Your task to perform on an android device: toggle show notifications on the lock screen Image 0: 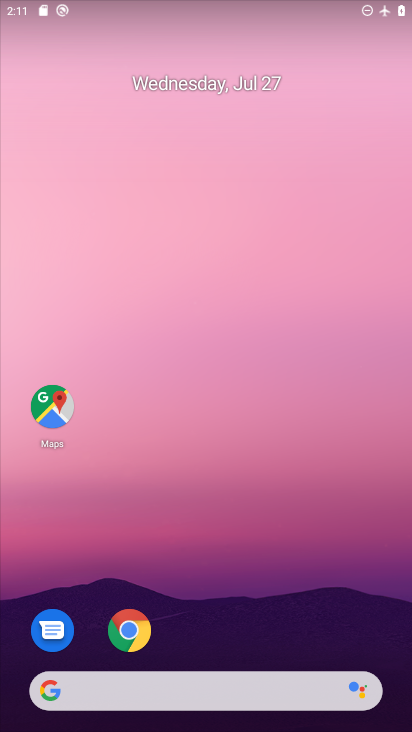
Step 0: drag from (375, 645) to (344, 183)
Your task to perform on an android device: toggle show notifications on the lock screen Image 1: 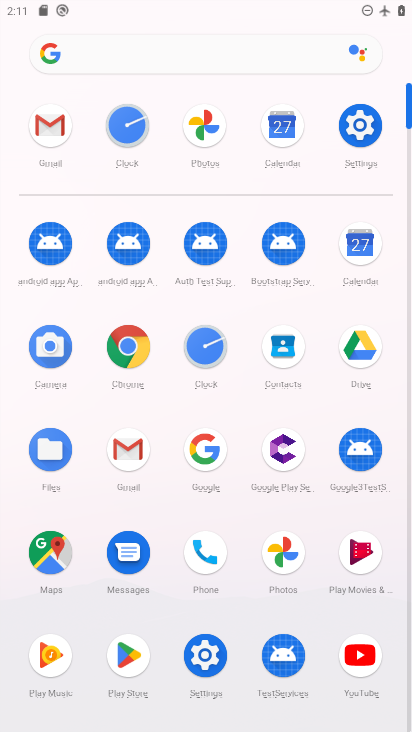
Step 1: click (204, 656)
Your task to perform on an android device: toggle show notifications on the lock screen Image 2: 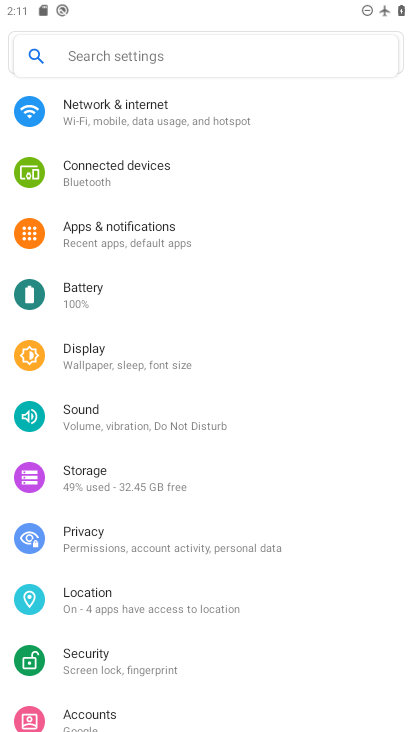
Step 2: click (98, 232)
Your task to perform on an android device: toggle show notifications on the lock screen Image 3: 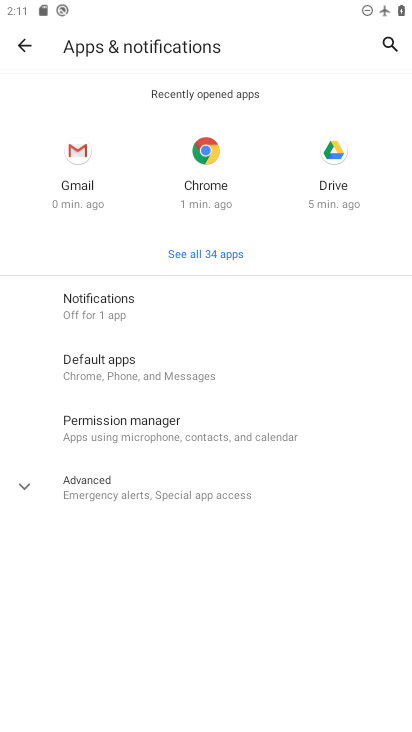
Step 3: click (91, 299)
Your task to perform on an android device: toggle show notifications on the lock screen Image 4: 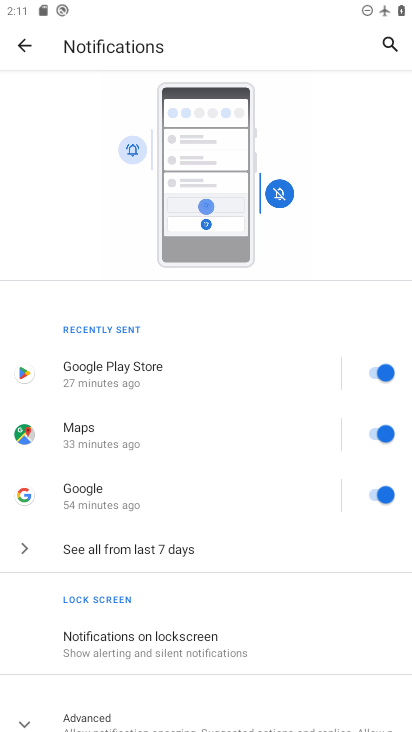
Step 4: drag from (290, 588) to (339, 191)
Your task to perform on an android device: toggle show notifications on the lock screen Image 5: 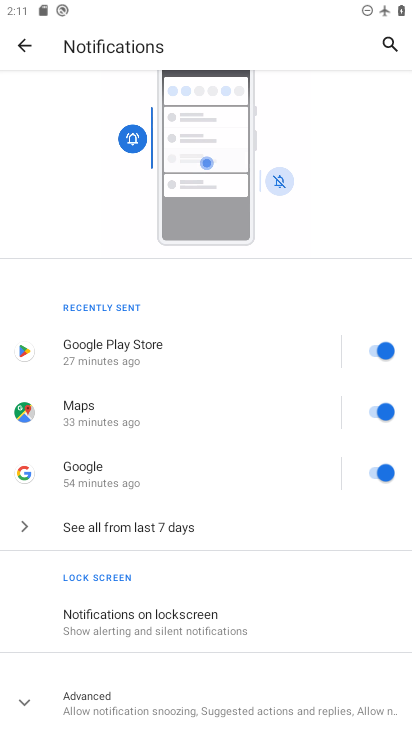
Step 5: click (125, 624)
Your task to perform on an android device: toggle show notifications on the lock screen Image 6: 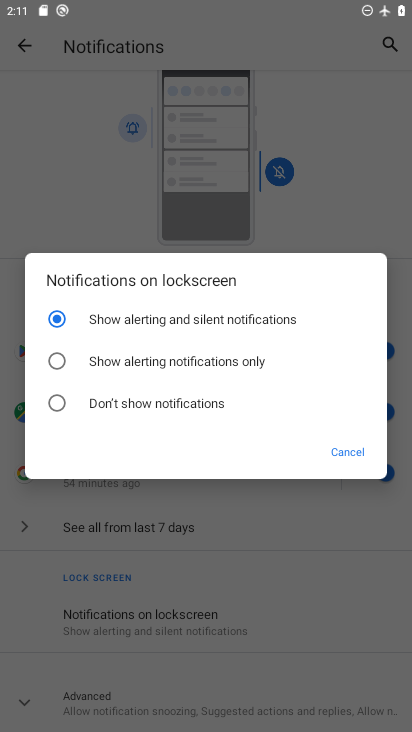
Step 6: click (58, 355)
Your task to perform on an android device: toggle show notifications on the lock screen Image 7: 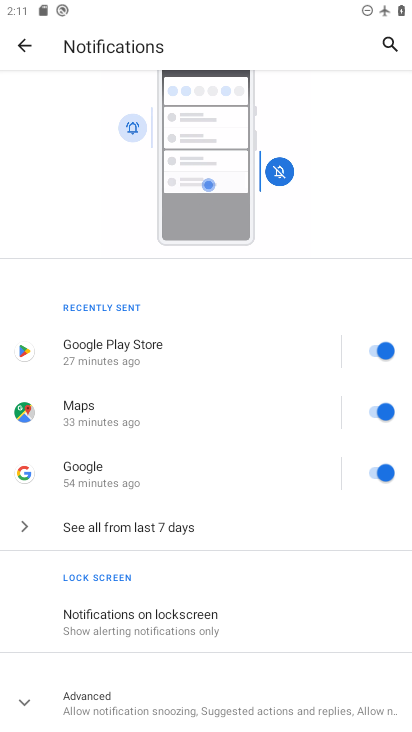
Step 7: task complete